Your task to perform on an android device: turn off sleep mode Image 0: 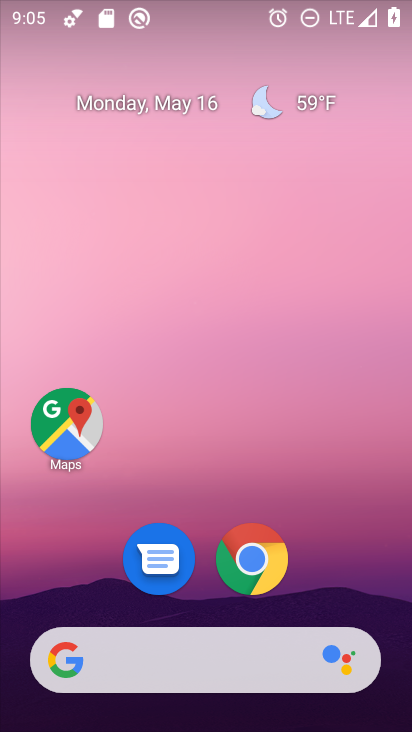
Step 0: drag from (372, 577) to (410, 123)
Your task to perform on an android device: turn off sleep mode Image 1: 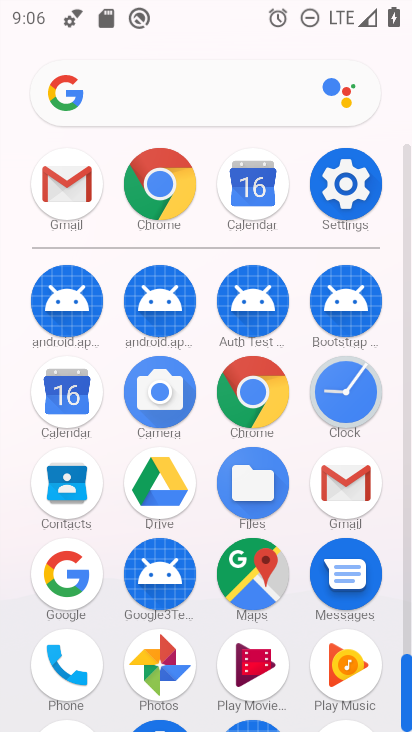
Step 1: click (373, 198)
Your task to perform on an android device: turn off sleep mode Image 2: 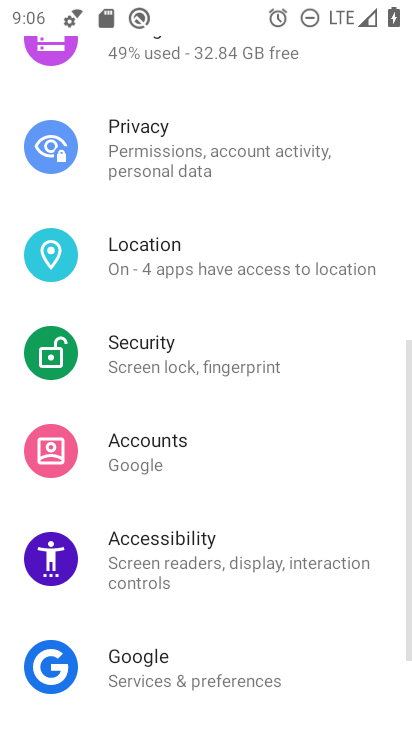
Step 2: drag from (170, 117) to (157, 525)
Your task to perform on an android device: turn off sleep mode Image 3: 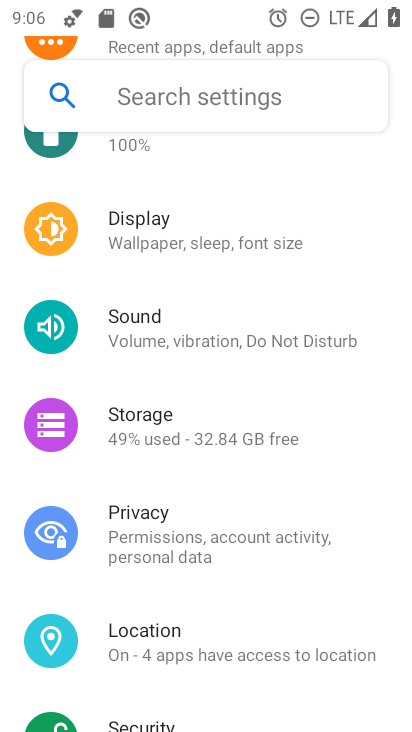
Step 3: click (195, 116)
Your task to perform on an android device: turn off sleep mode Image 4: 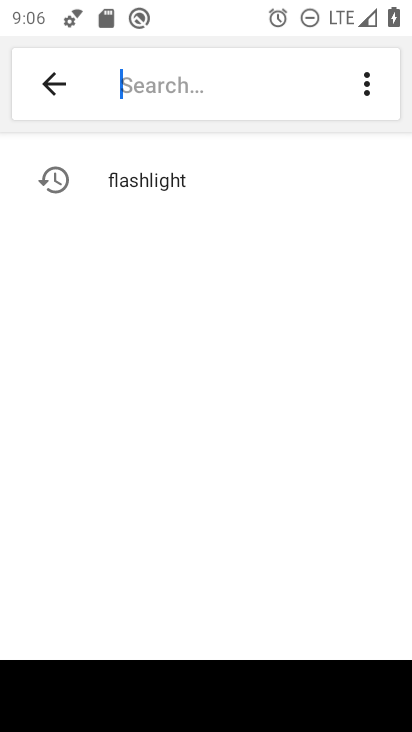
Step 4: type "sleep mode"
Your task to perform on an android device: turn off sleep mode Image 5: 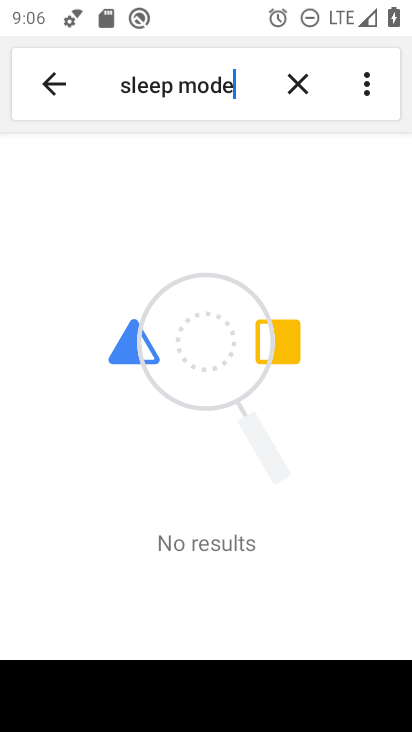
Step 5: task complete